Your task to perform on an android device: What is the recent news? Image 0: 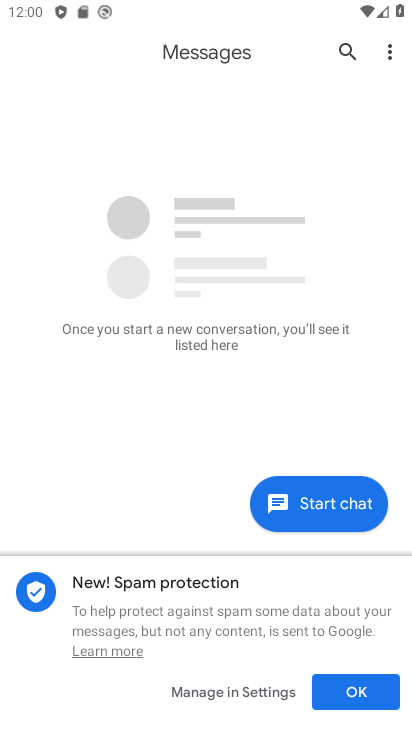
Step 0: press home button
Your task to perform on an android device: What is the recent news? Image 1: 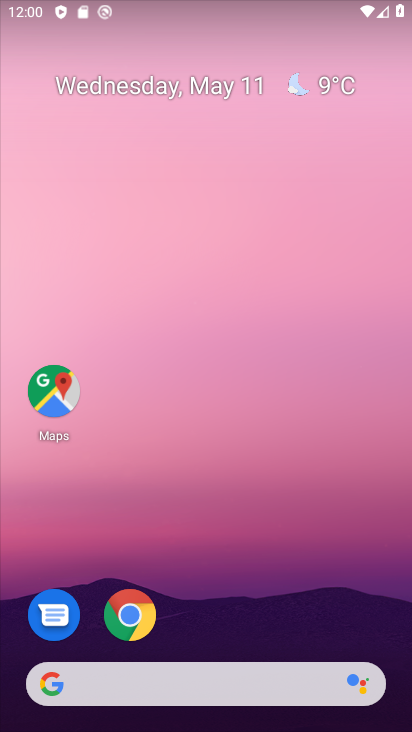
Step 1: drag from (347, 571) to (313, 140)
Your task to perform on an android device: What is the recent news? Image 2: 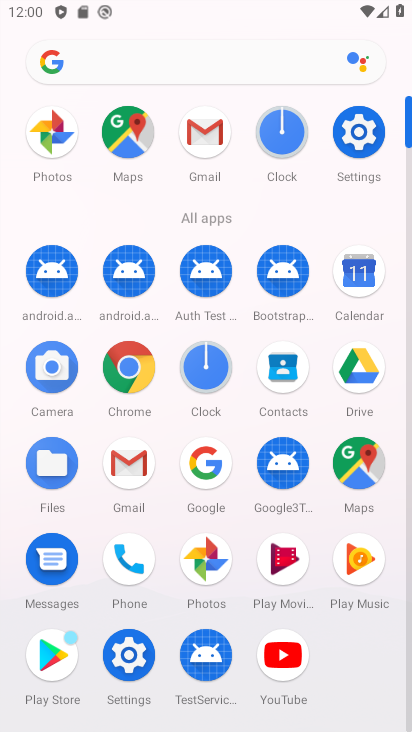
Step 2: click (116, 372)
Your task to perform on an android device: What is the recent news? Image 3: 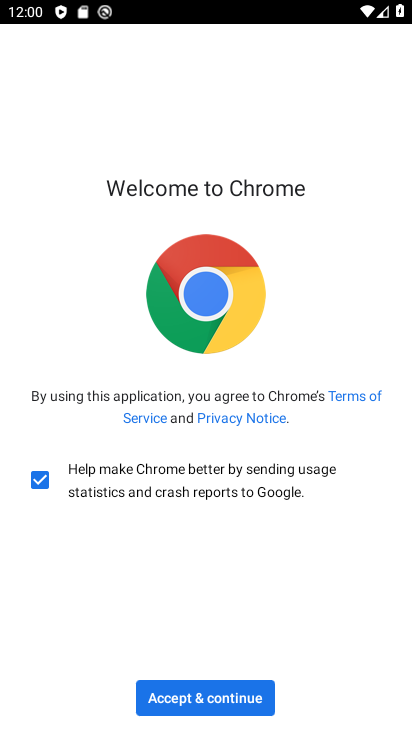
Step 3: click (234, 710)
Your task to perform on an android device: What is the recent news? Image 4: 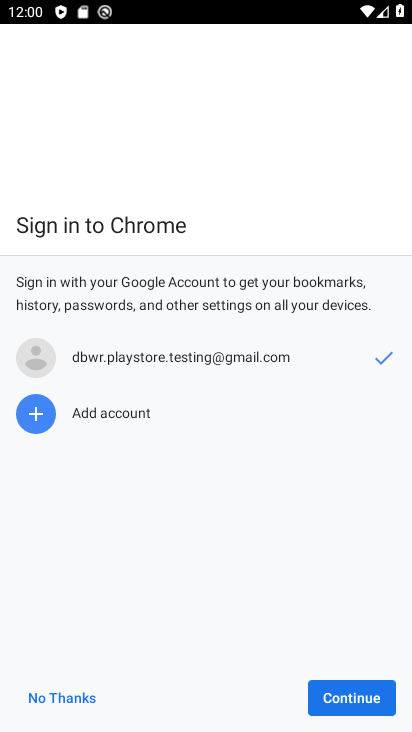
Step 4: click (380, 706)
Your task to perform on an android device: What is the recent news? Image 5: 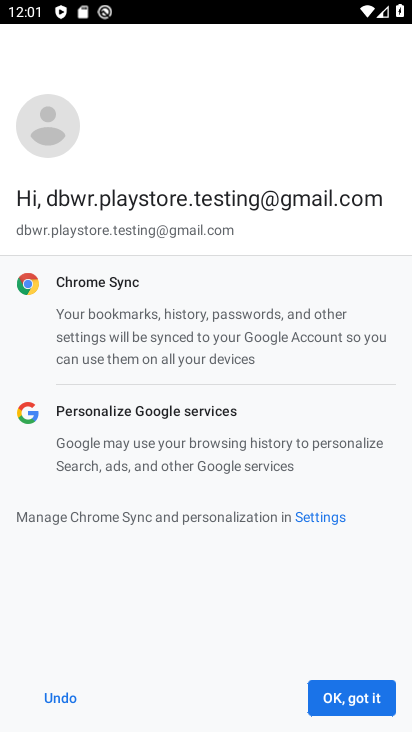
Step 5: click (335, 710)
Your task to perform on an android device: What is the recent news? Image 6: 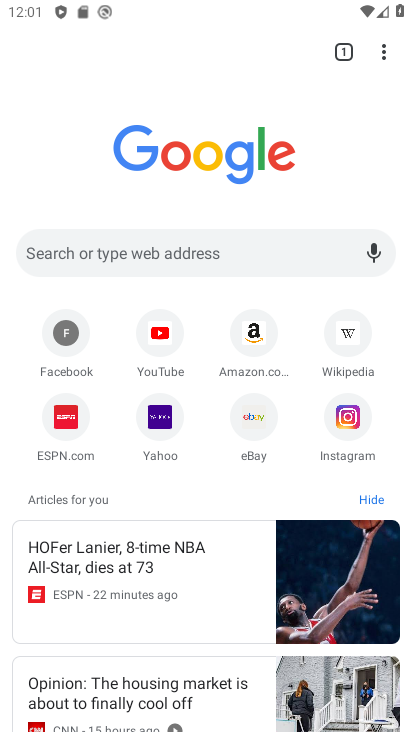
Step 6: task complete